Your task to perform on an android device: Is it going to rain tomorrow? Image 0: 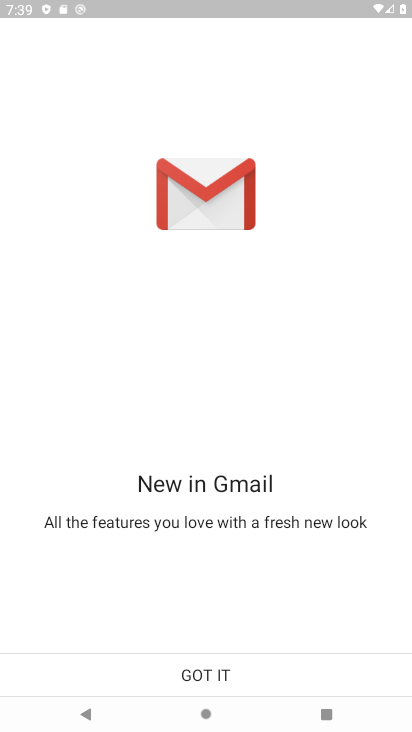
Step 0: press home button
Your task to perform on an android device: Is it going to rain tomorrow? Image 1: 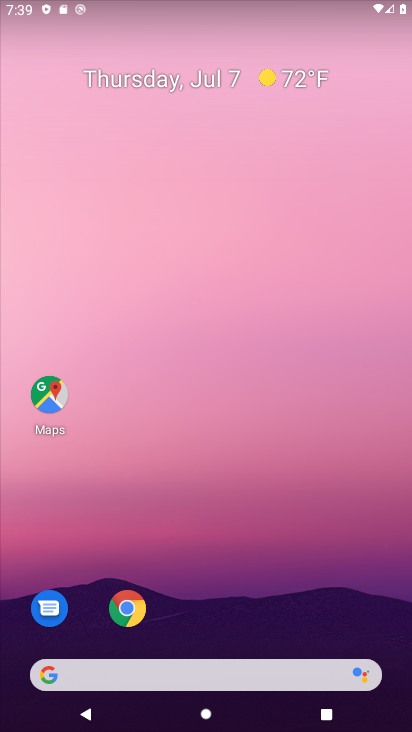
Step 1: drag from (0, 249) to (407, 235)
Your task to perform on an android device: Is it going to rain tomorrow? Image 2: 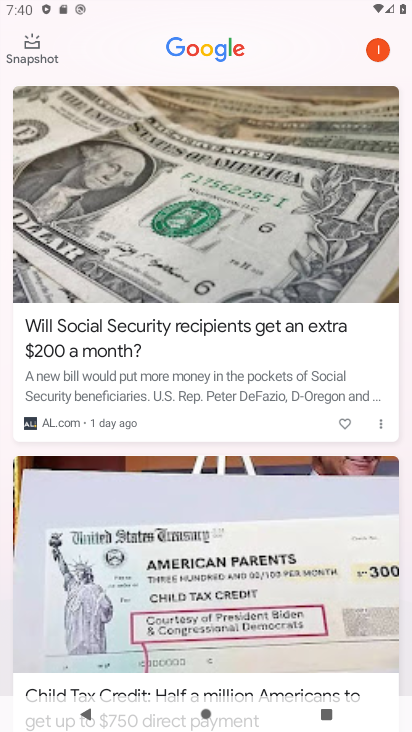
Step 2: drag from (204, 188) to (220, 630)
Your task to perform on an android device: Is it going to rain tomorrow? Image 3: 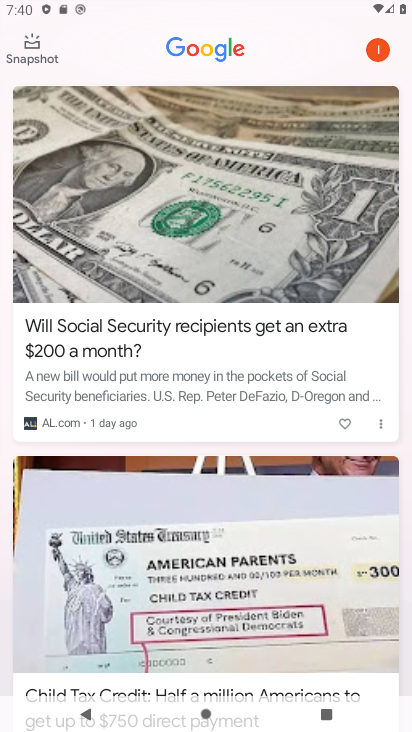
Step 3: drag from (226, 265) to (244, 535)
Your task to perform on an android device: Is it going to rain tomorrow? Image 4: 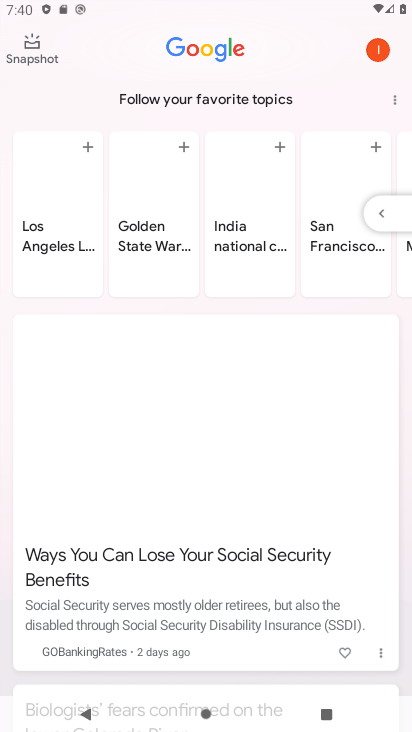
Step 4: press back button
Your task to perform on an android device: Is it going to rain tomorrow? Image 5: 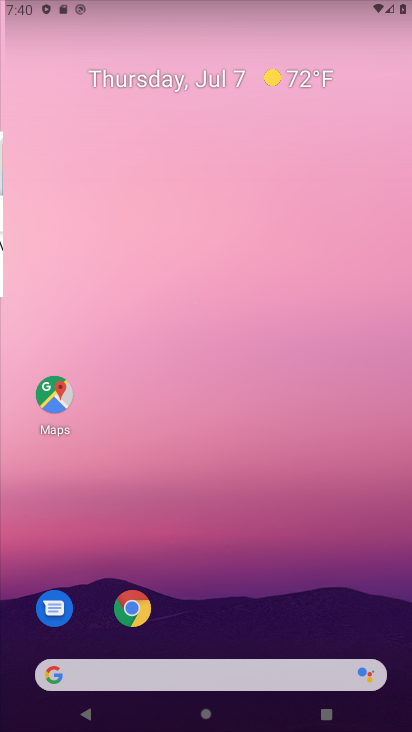
Step 5: press back button
Your task to perform on an android device: Is it going to rain tomorrow? Image 6: 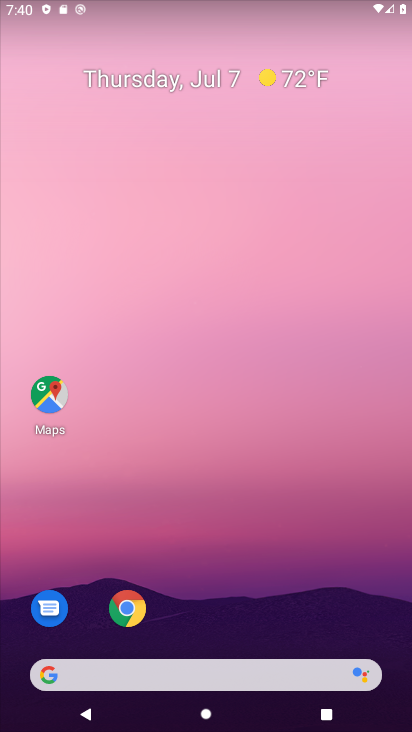
Step 6: click (298, 68)
Your task to perform on an android device: Is it going to rain tomorrow? Image 7: 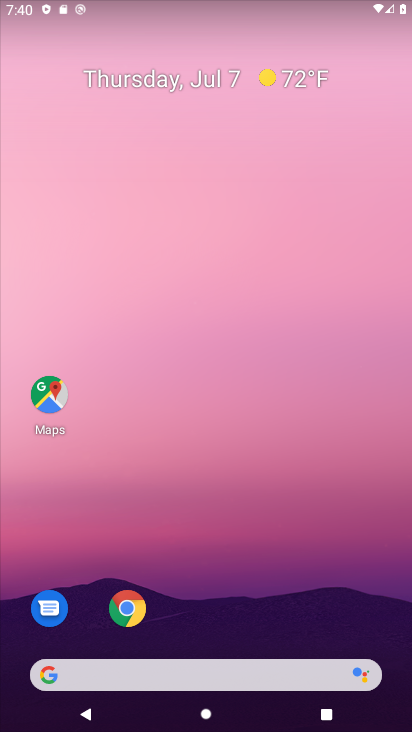
Step 7: click (298, 79)
Your task to perform on an android device: Is it going to rain tomorrow? Image 8: 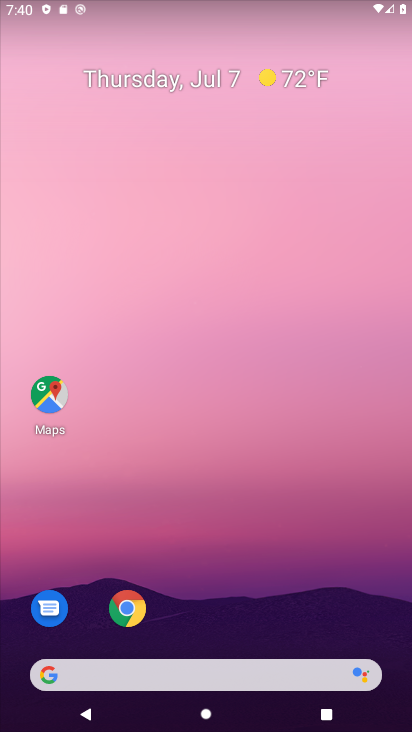
Step 8: task complete